Your task to perform on an android device: Clear the cart on newegg.com. Image 0: 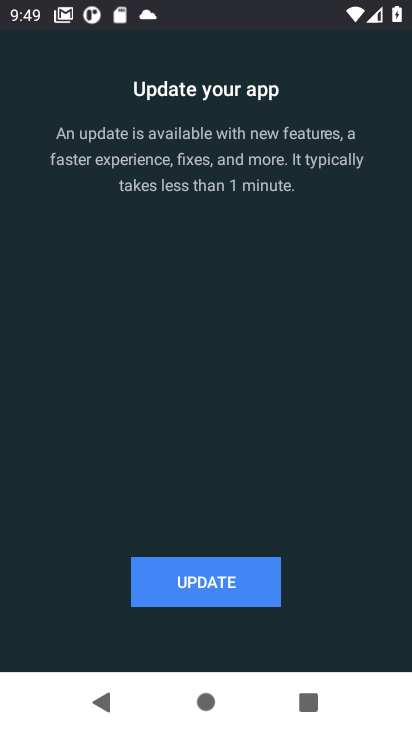
Step 0: press home button
Your task to perform on an android device: Clear the cart on newegg.com. Image 1: 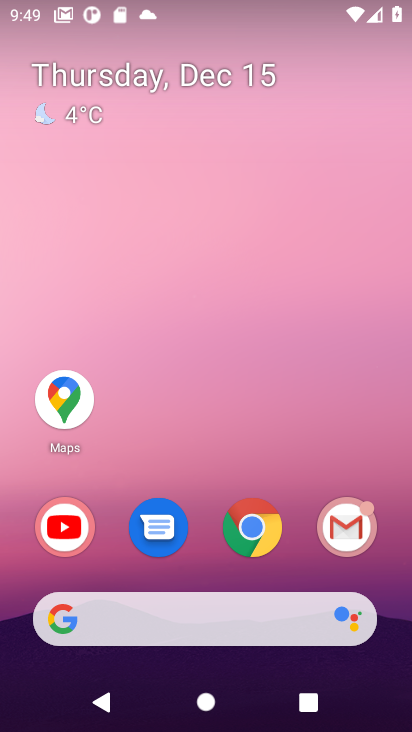
Step 1: click (247, 549)
Your task to perform on an android device: Clear the cart on newegg.com. Image 2: 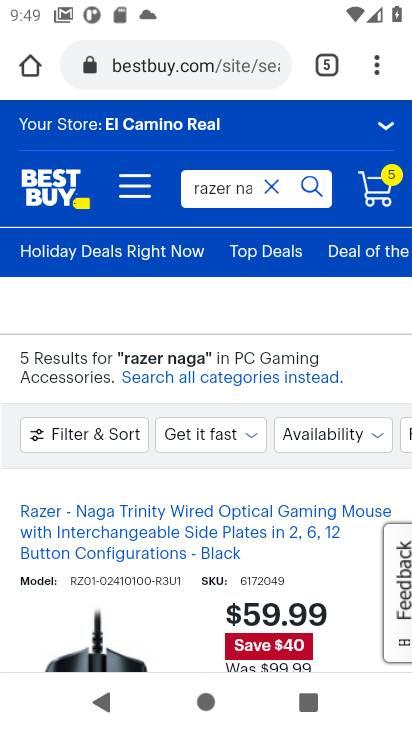
Step 2: click (258, 186)
Your task to perform on an android device: Clear the cart on newegg.com. Image 3: 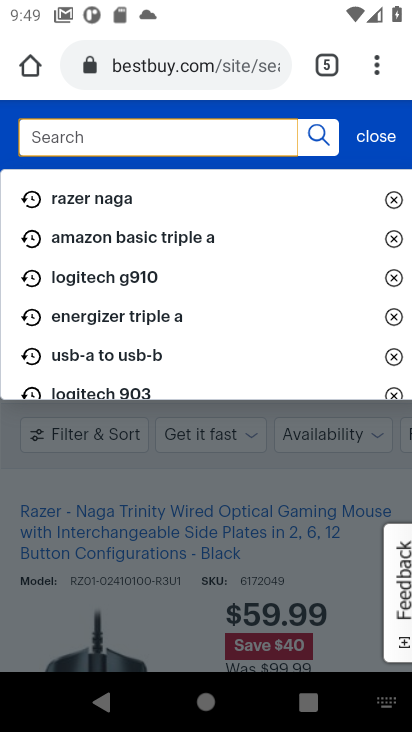
Step 3: type "newegg"
Your task to perform on an android device: Clear the cart on newegg.com. Image 4: 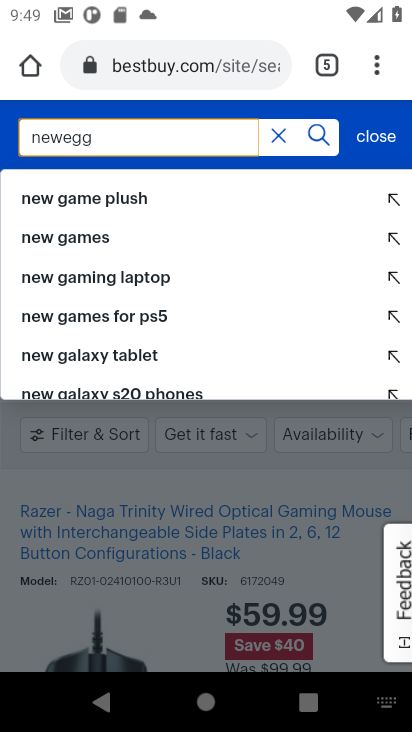
Step 4: click (178, 75)
Your task to perform on an android device: Clear the cart on newegg.com. Image 5: 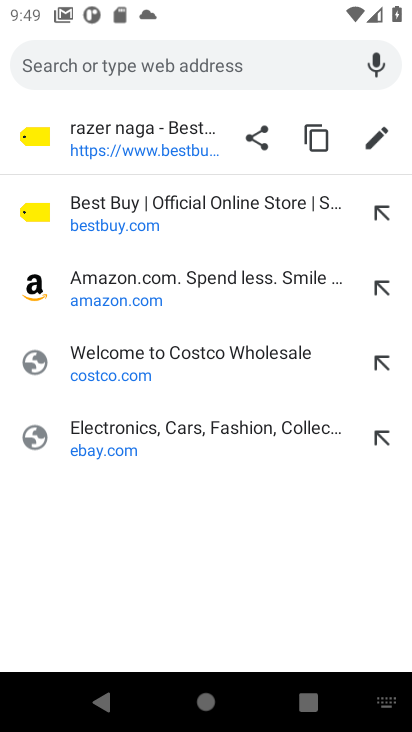
Step 5: type "newegg"
Your task to perform on an android device: Clear the cart on newegg.com. Image 6: 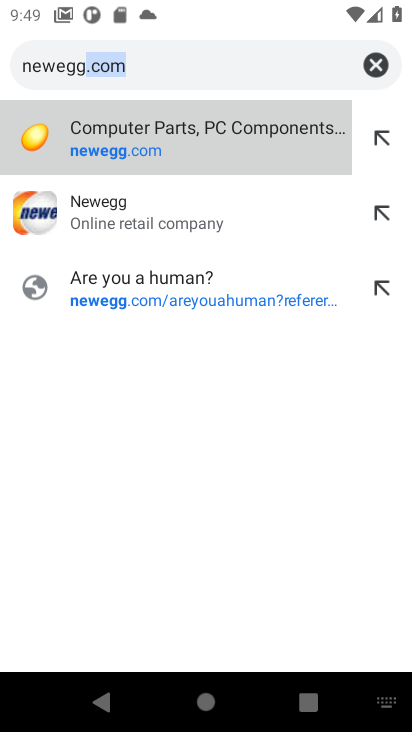
Step 6: click (158, 200)
Your task to perform on an android device: Clear the cart on newegg.com. Image 7: 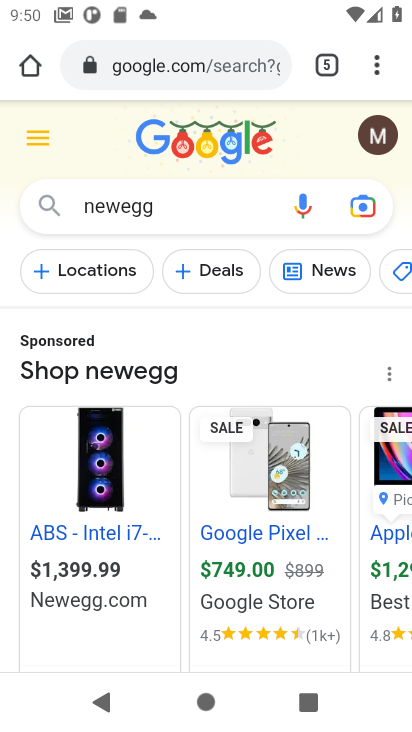
Step 7: click (34, 592)
Your task to perform on an android device: Clear the cart on newegg.com. Image 8: 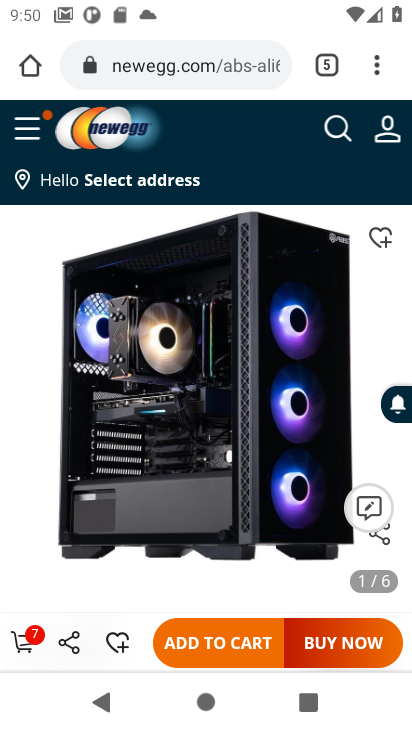
Step 8: click (227, 629)
Your task to perform on an android device: Clear the cart on newegg.com. Image 9: 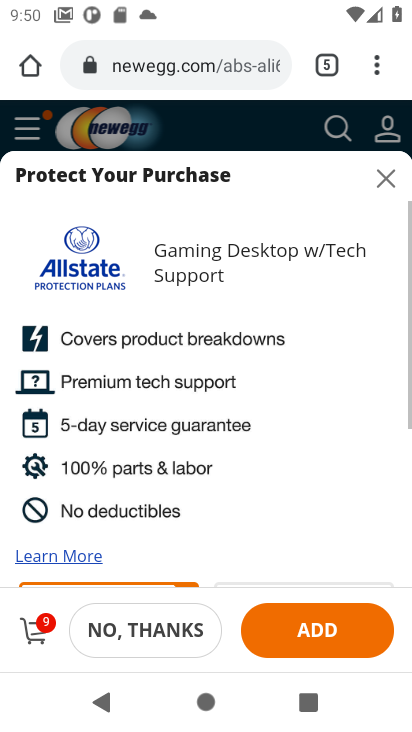
Step 9: task complete